Your task to perform on an android device: Search for seafood restaurants on Google Maps Image 0: 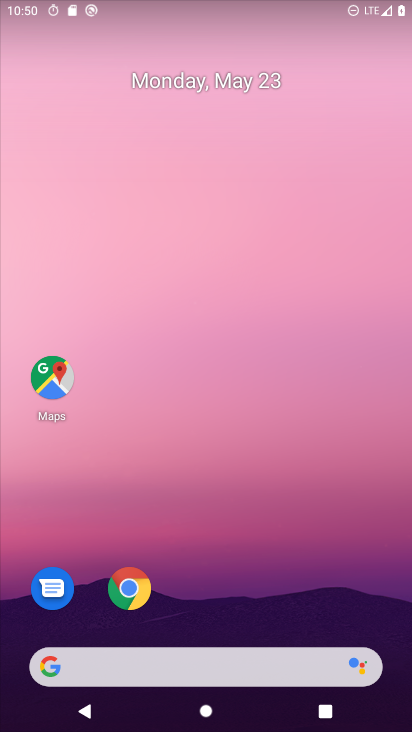
Step 0: click (56, 362)
Your task to perform on an android device: Search for seafood restaurants on Google Maps Image 1: 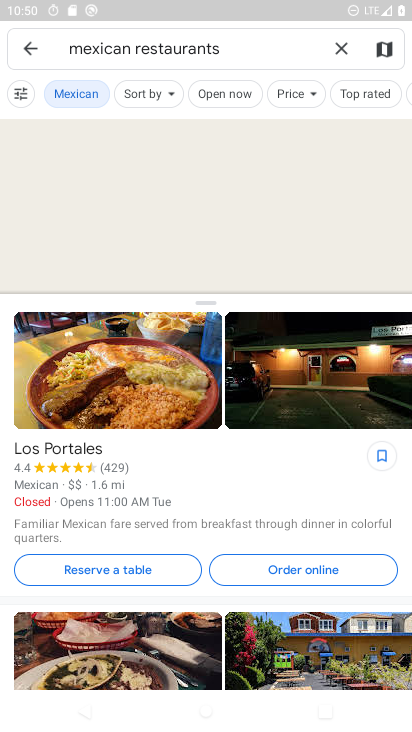
Step 1: click (335, 43)
Your task to perform on an android device: Search for seafood restaurants on Google Maps Image 2: 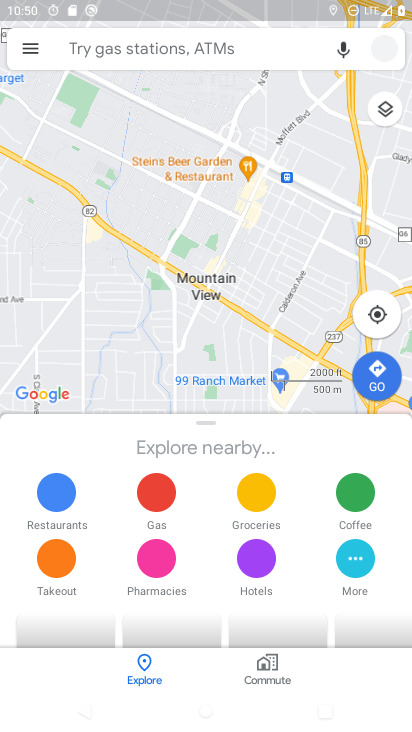
Step 2: click (93, 48)
Your task to perform on an android device: Search for seafood restaurants on Google Maps Image 3: 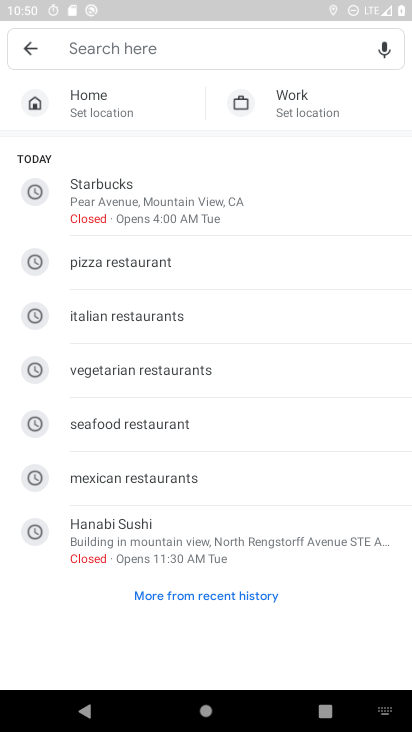
Step 3: type "seafood restaurants"
Your task to perform on an android device: Search for seafood restaurants on Google Maps Image 4: 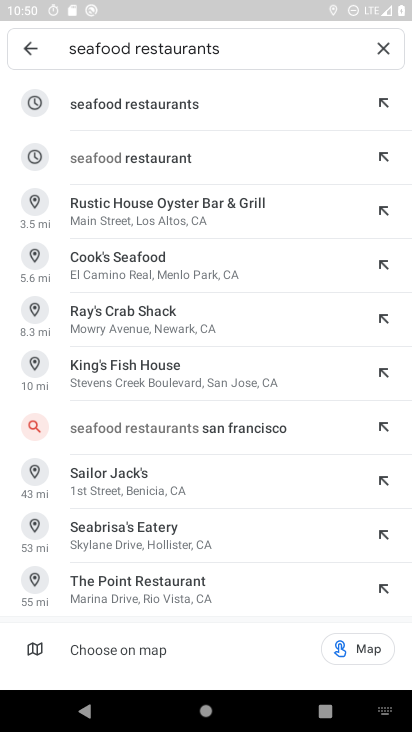
Step 4: click (153, 104)
Your task to perform on an android device: Search for seafood restaurants on Google Maps Image 5: 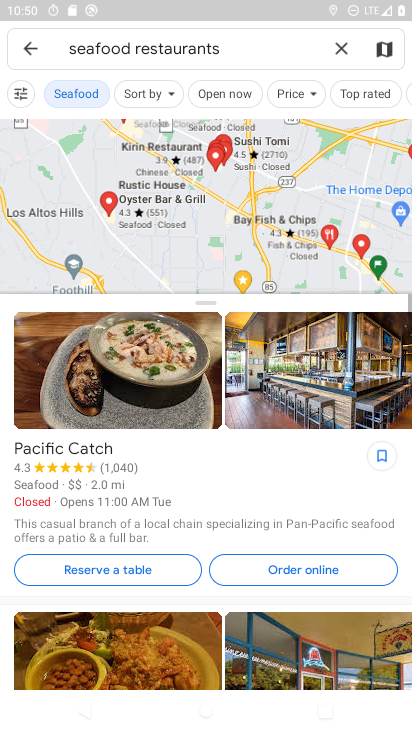
Step 5: task complete